Your task to perform on an android device: delete a single message in the gmail app Image 0: 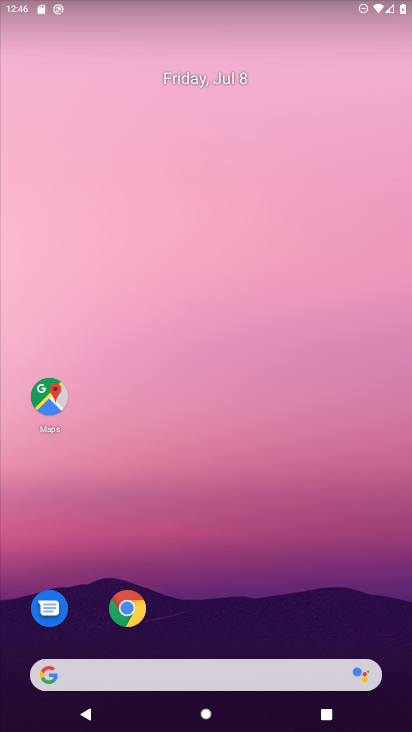
Step 0: drag from (244, 723) to (203, 156)
Your task to perform on an android device: delete a single message in the gmail app Image 1: 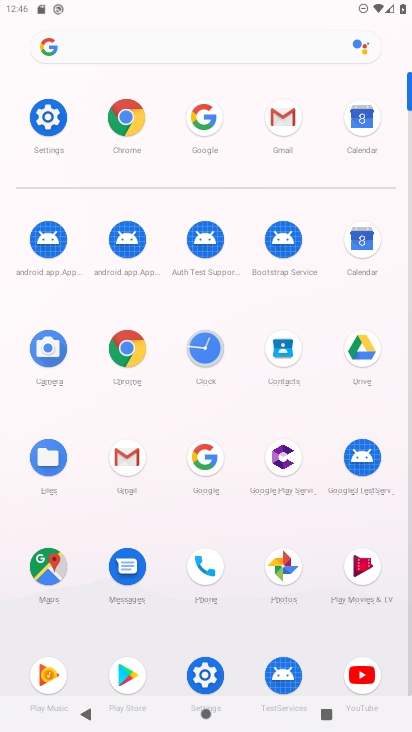
Step 1: click (124, 461)
Your task to perform on an android device: delete a single message in the gmail app Image 2: 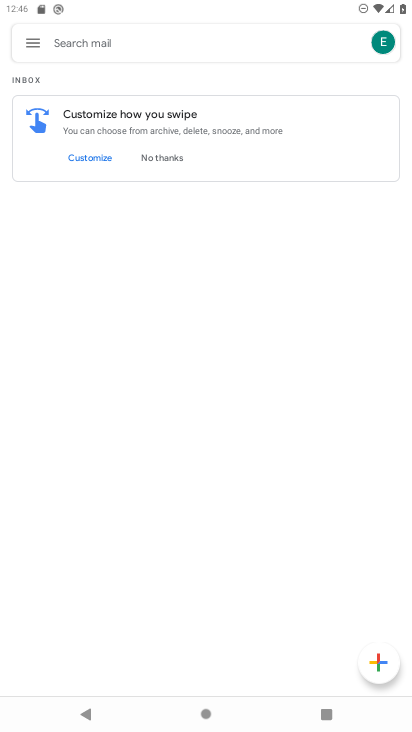
Step 2: task complete